Your task to perform on an android device: turn off translation in the chrome app Image 0: 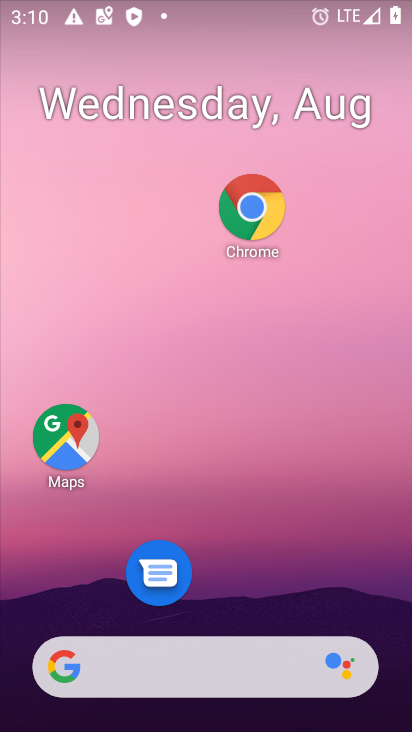
Step 0: drag from (195, 632) to (243, 159)
Your task to perform on an android device: turn off translation in the chrome app Image 1: 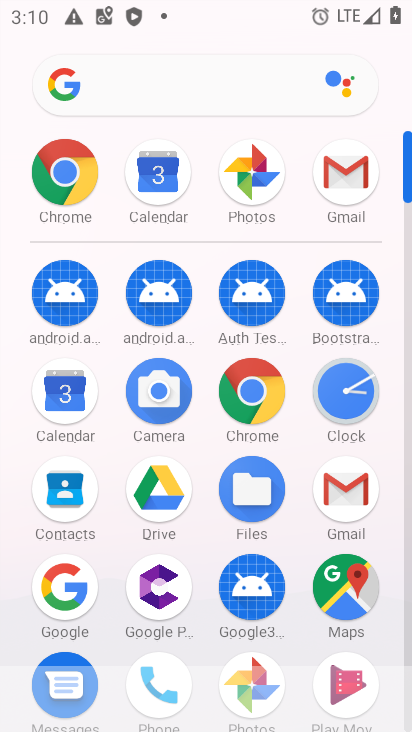
Step 1: click (254, 394)
Your task to perform on an android device: turn off translation in the chrome app Image 2: 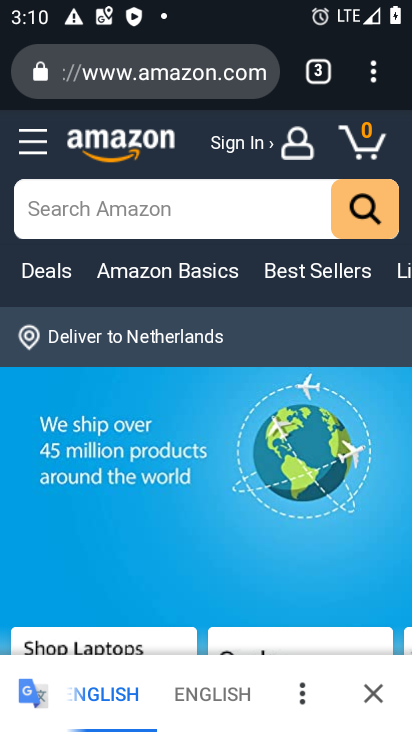
Step 2: click (386, 87)
Your task to perform on an android device: turn off translation in the chrome app Image 3: 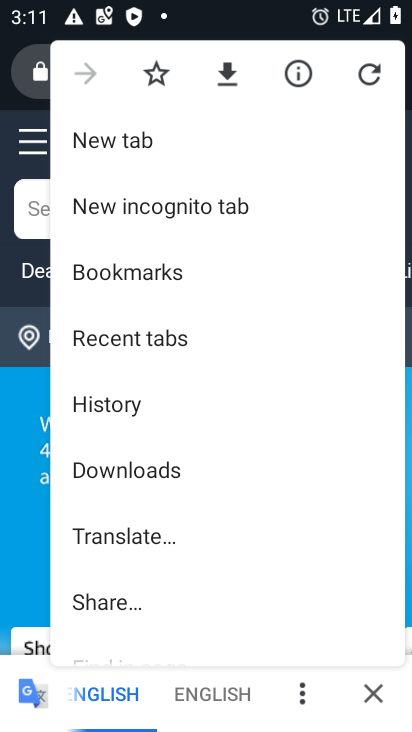
Step 3: click (131, 536)
Your task to perform on an android device: turn off translation in the chrome app Image 4: 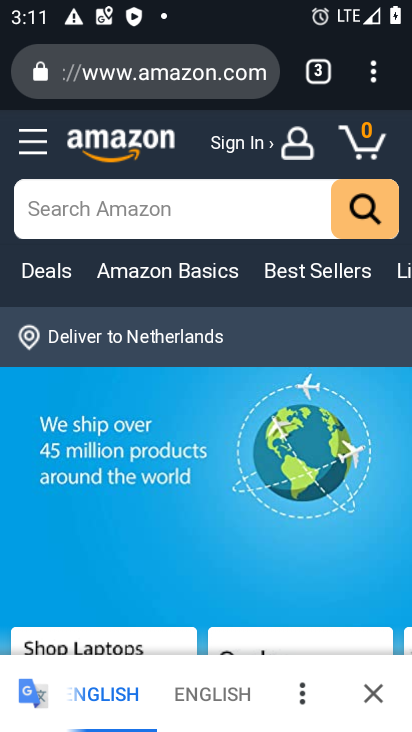
Step 4: click (308, 688)
Your task to perform on an android device: turn off translation in the chrome app Image 5: 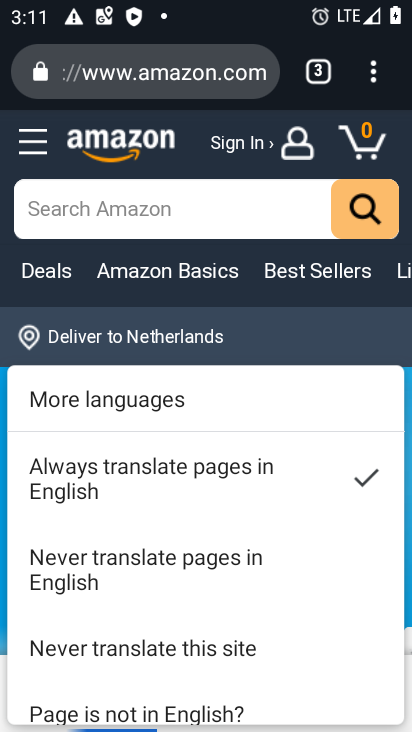
Step 5: drag from (266, 626) to (267, 472)
Your task to perform on an android device: turn off translation in the chrome app Image 6: 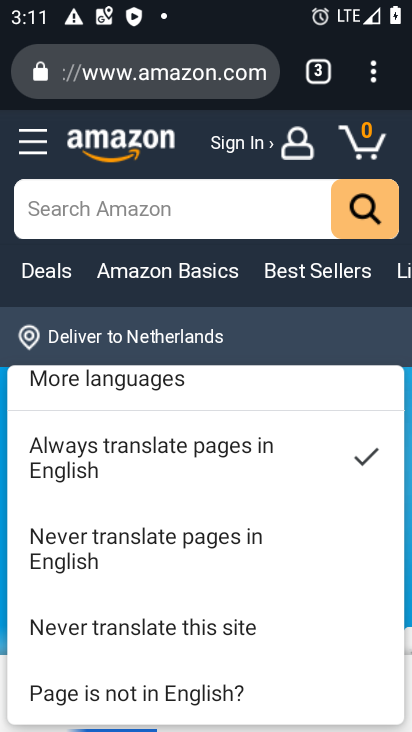
Step 6: click (212, 630)
Your task to perform on an android device: turn off translation in the chrome app Image 7: 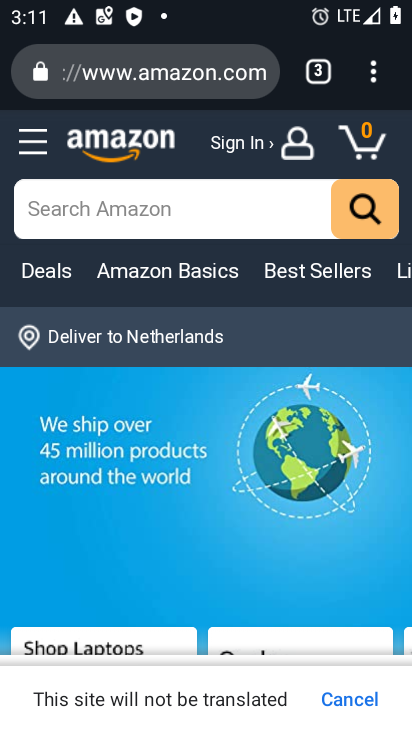
Step 7: task complete